Your task to perform on an android device: open app "YouTube Kids" Image 0: 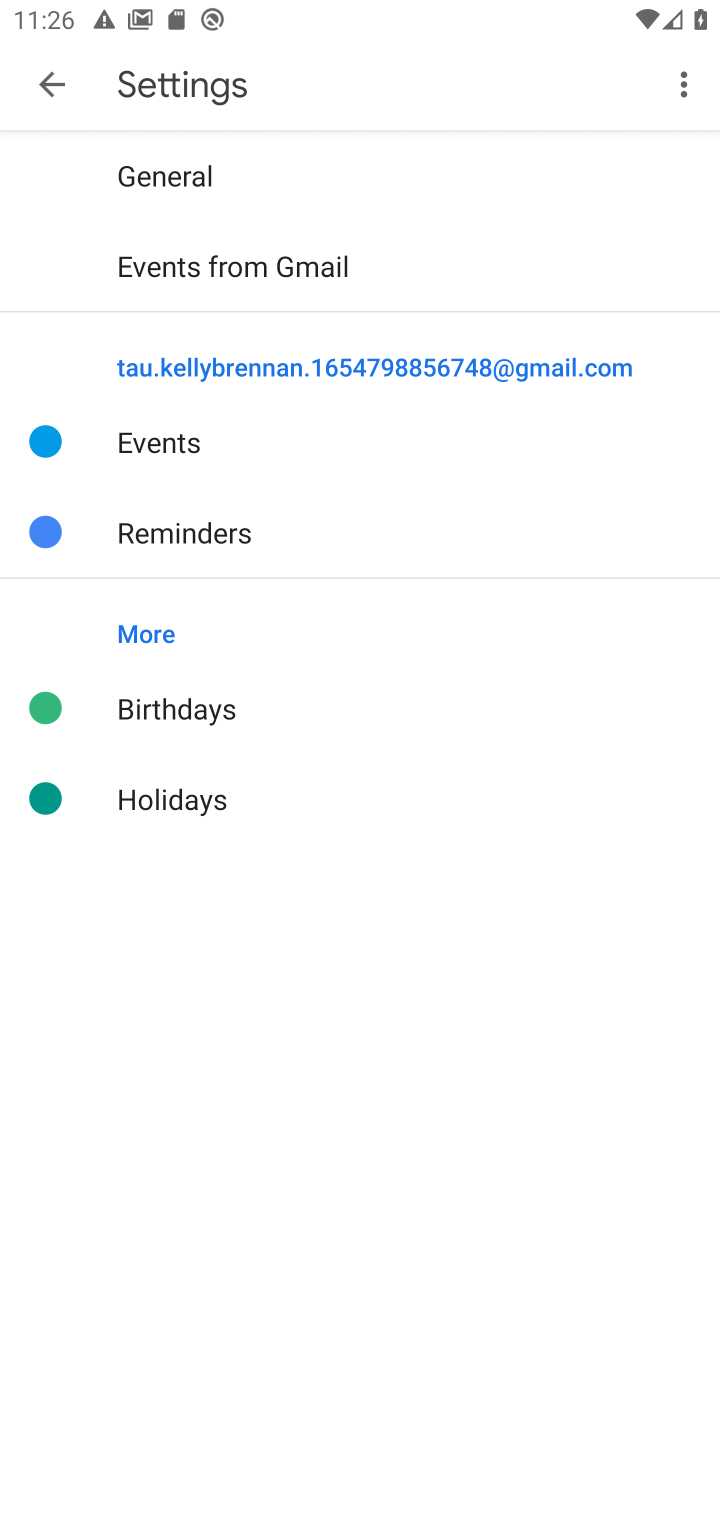
Step 0: press back button
Your task to perform on an android device: open app "YouTube Kids" Image 1: 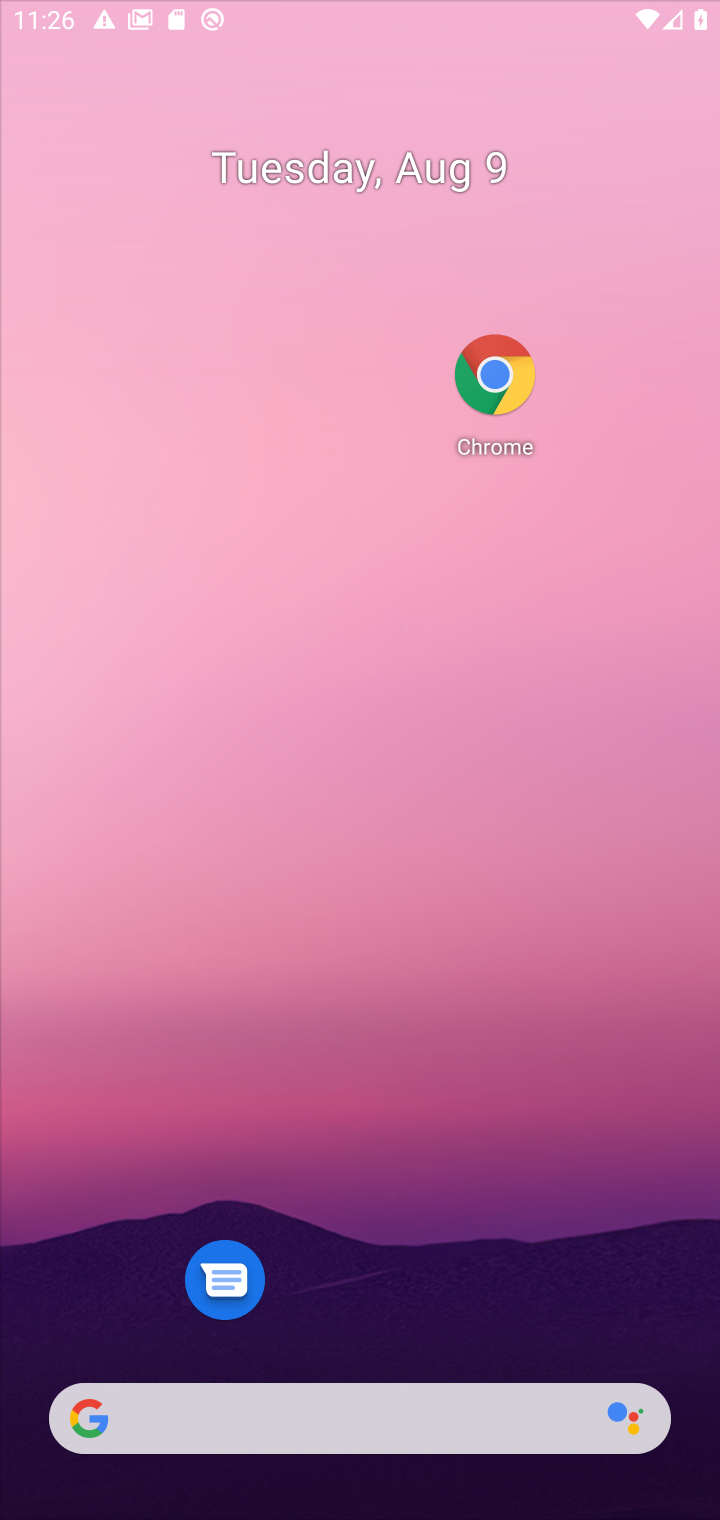
Step 1: press home button
Your task to perform on an android device: open app "YouTube Kids" Image 2: 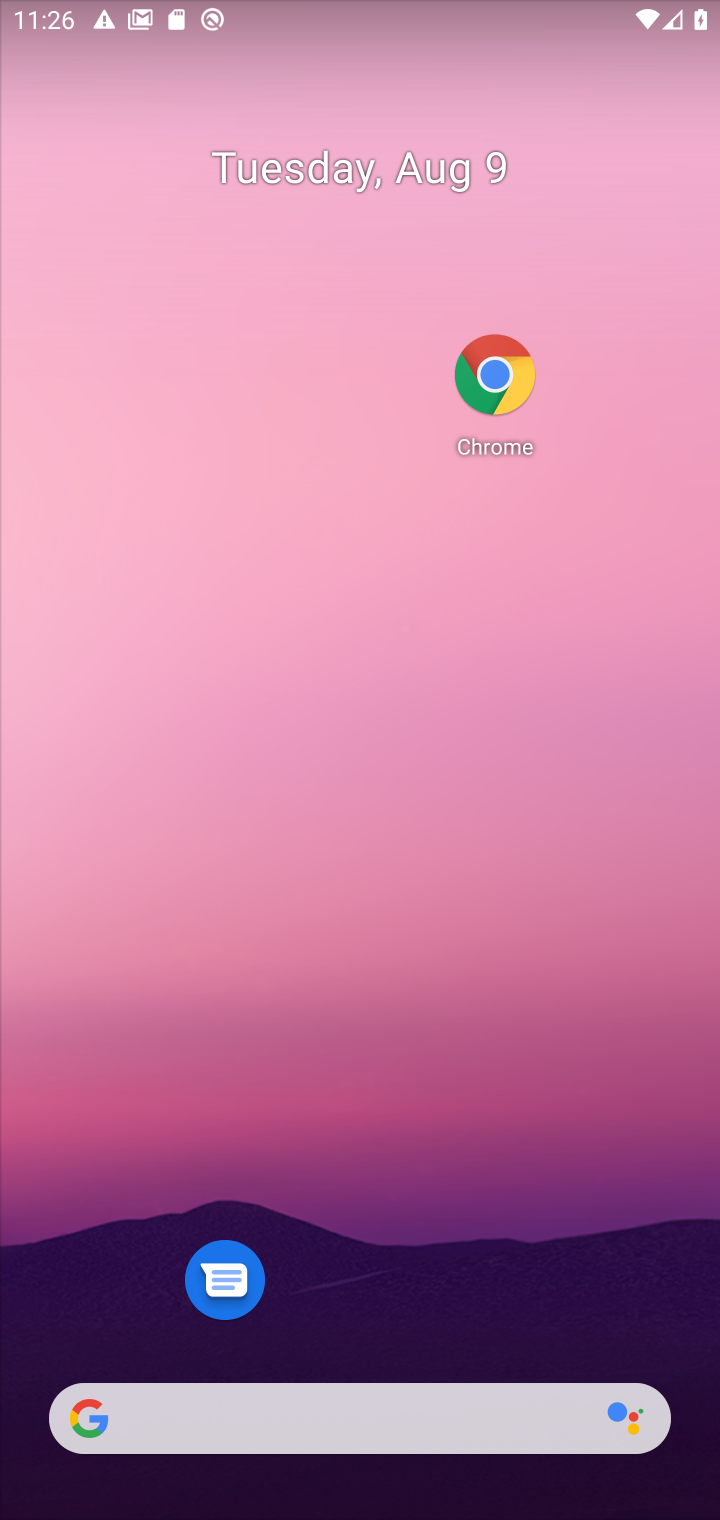
Step 2: drag from (389, 1340) to (293, 146)
Your task to perform on an android device: open app "YouTube Kids" Image 3: 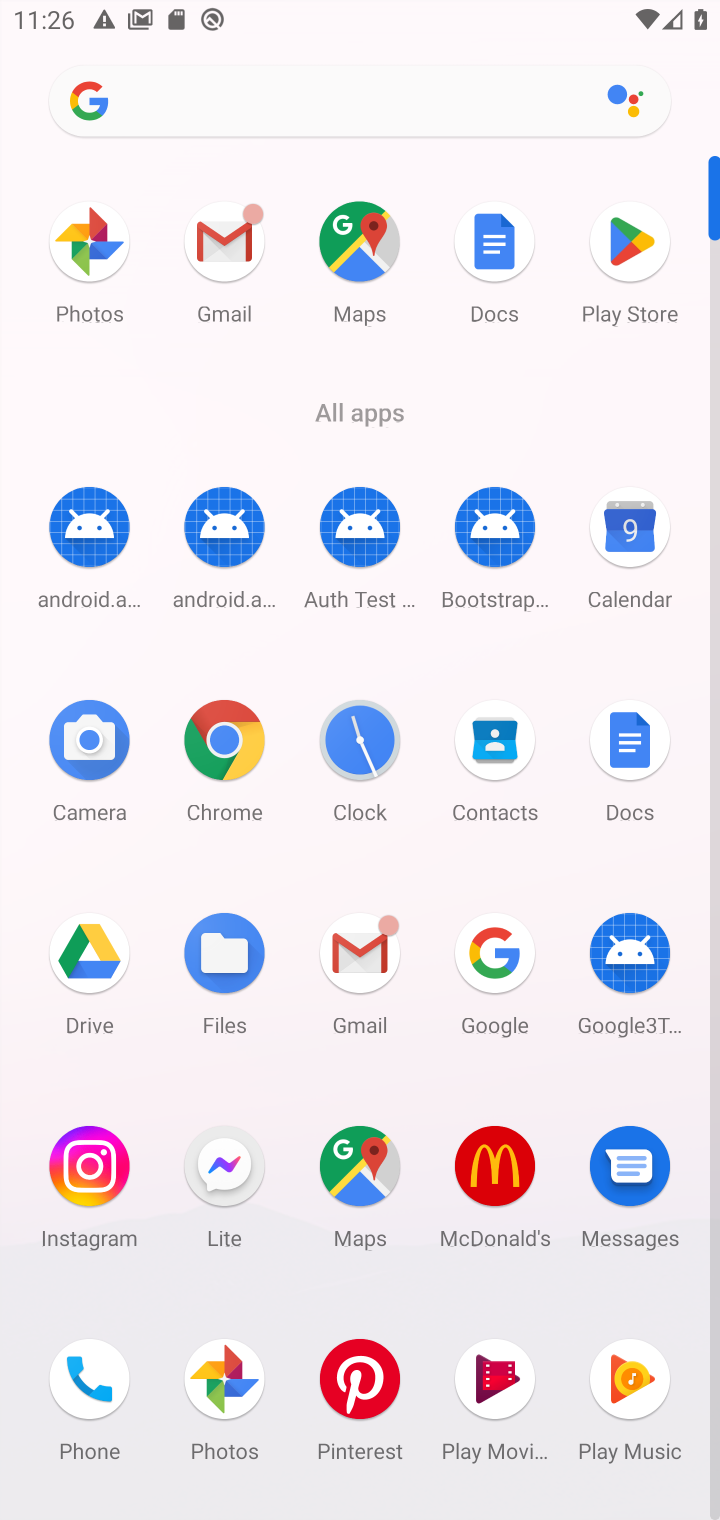
Step 3: click (628, 278)
Your task to perform on an android device: open app "YouTube Kids" Image 4: 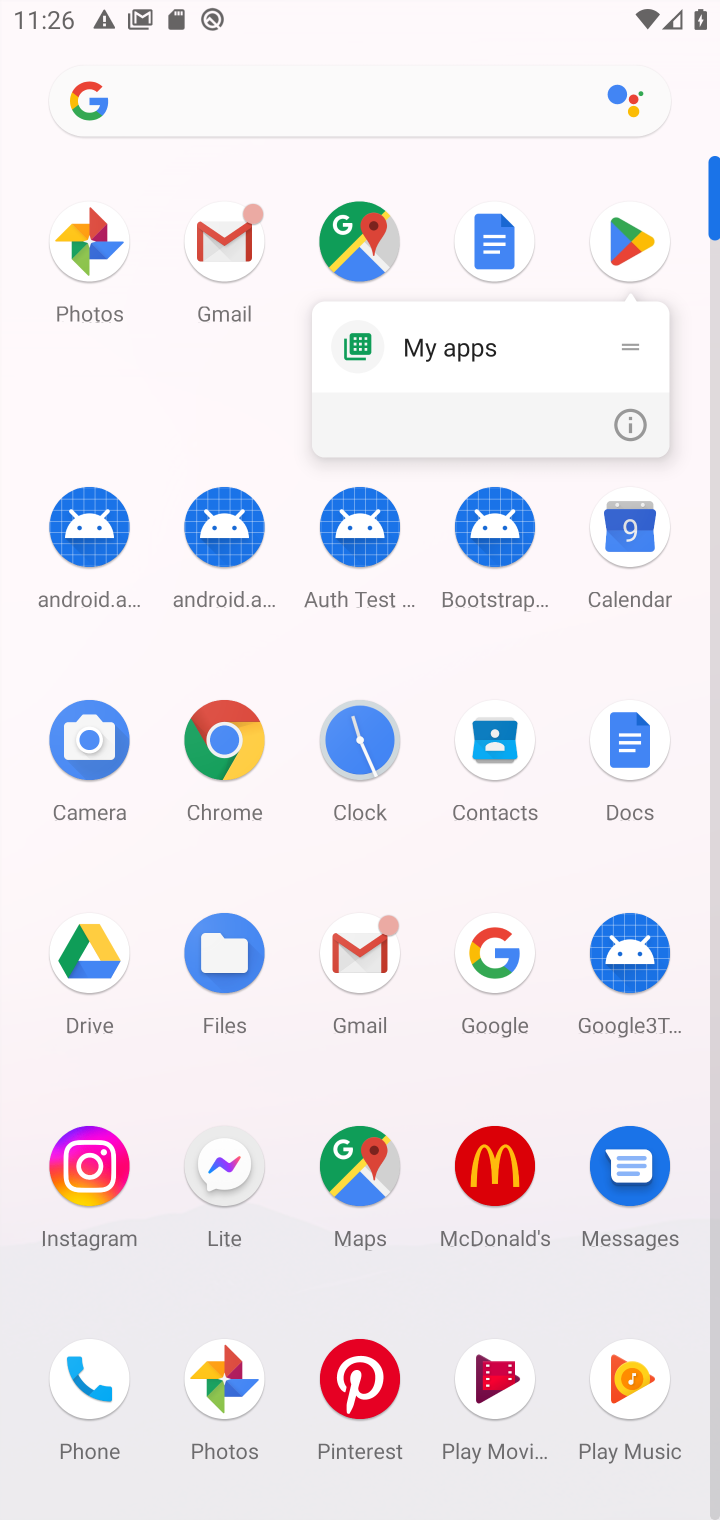
Step 4: click (628, 241)
Your task to perform on an android device: open app "YouTube Kids" Image 5: 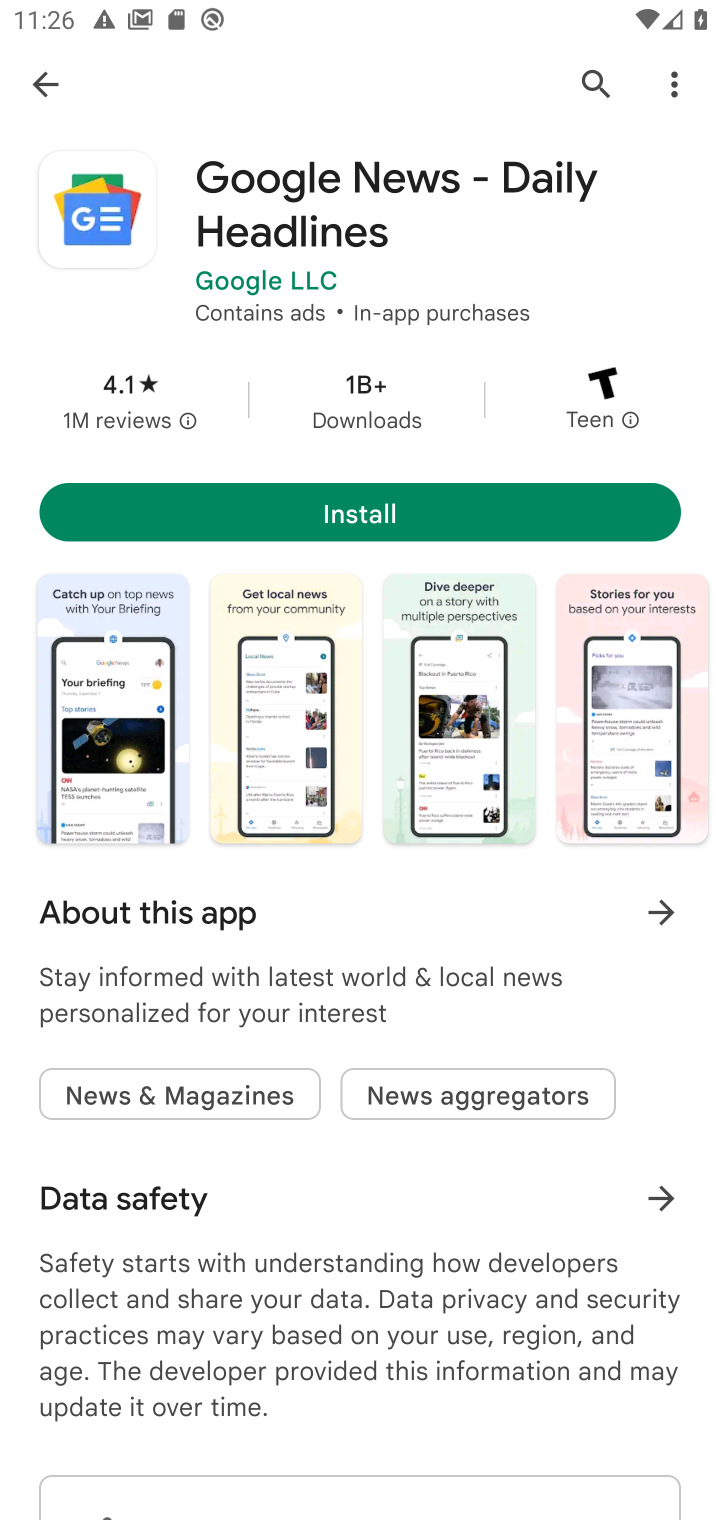
Step 5: click (31, 89)
Your task to perform on an android device: open app "YouTube Kids" Image 6: 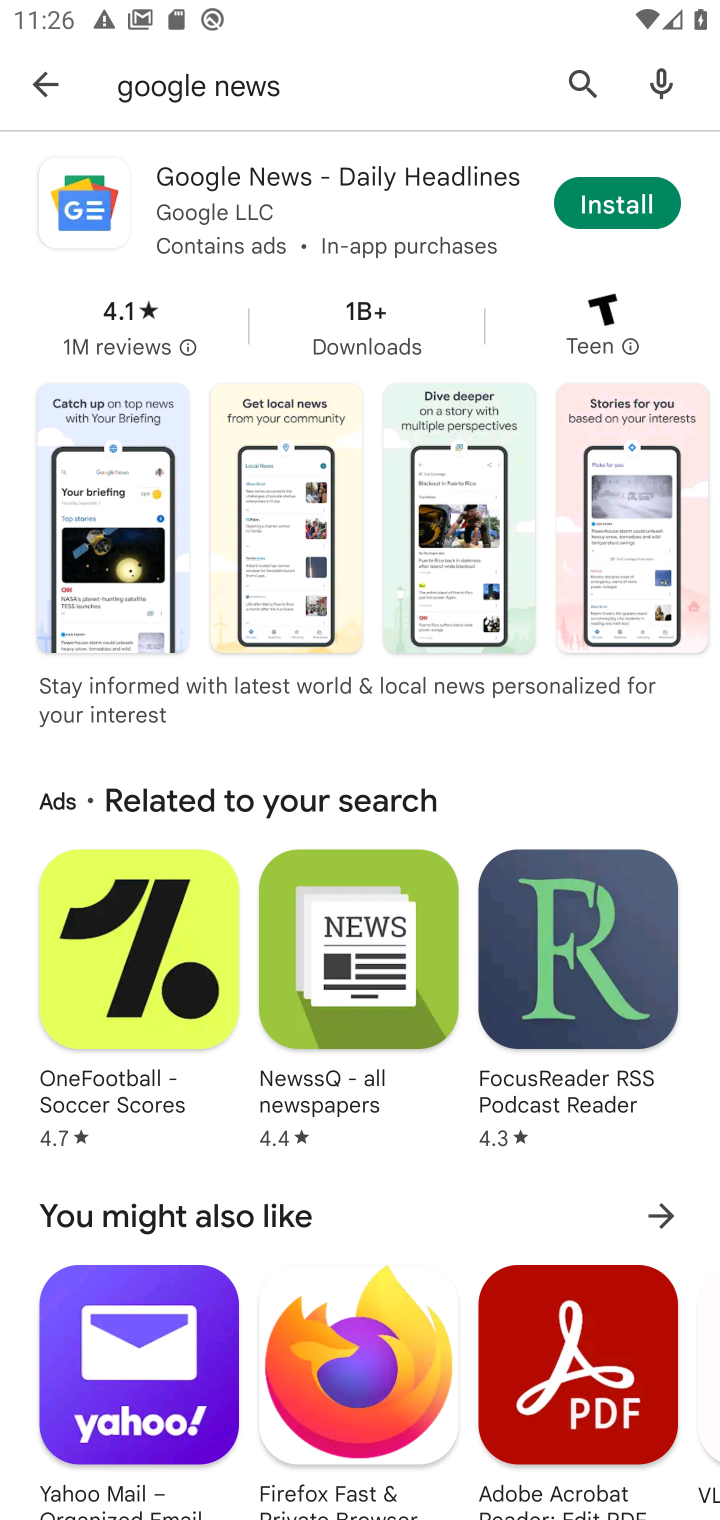
Step 6: click (75, 88)
Your task to perform on an android device: open app "YouTube Kids" Image 7: 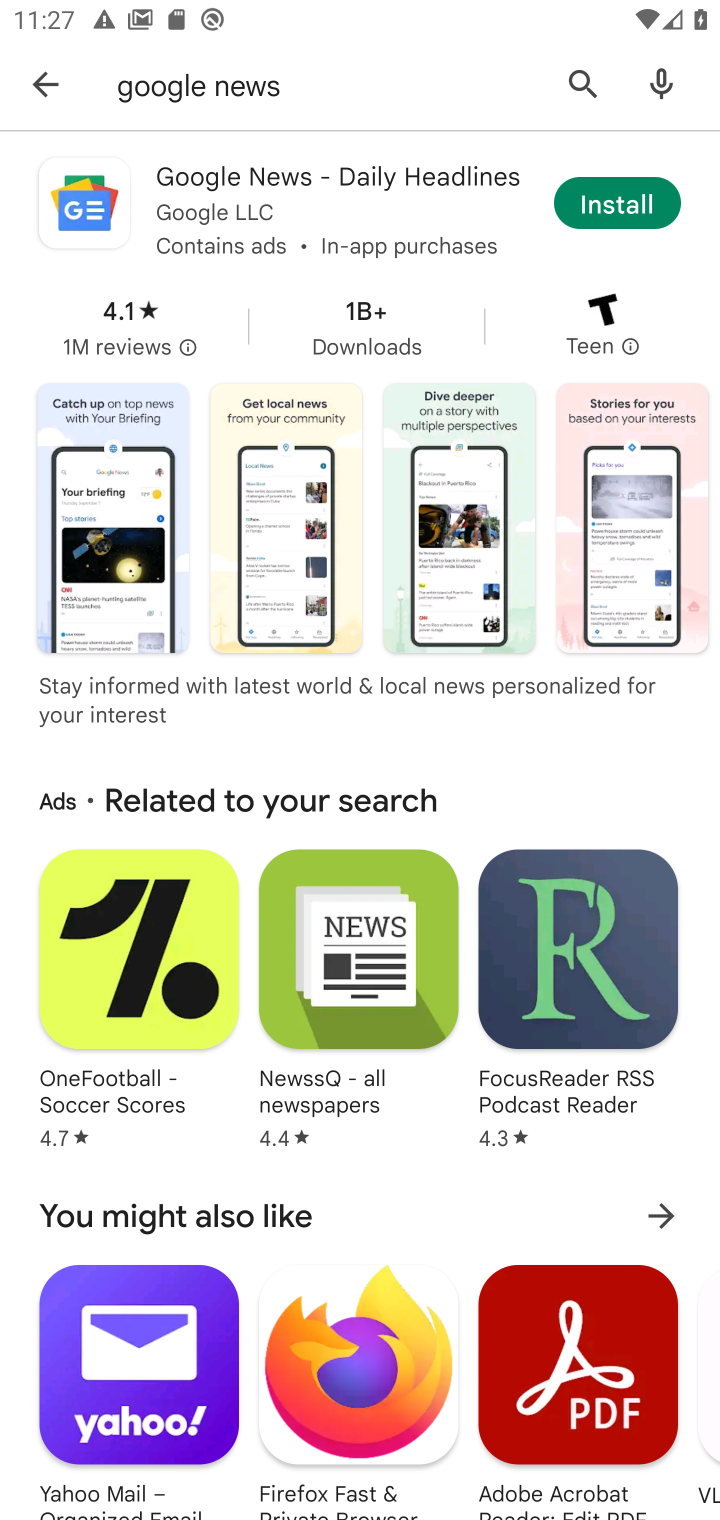
Step 7: click (559, 86)
Your task to perform on an android device: open app "YouTube Kids" Image 8: 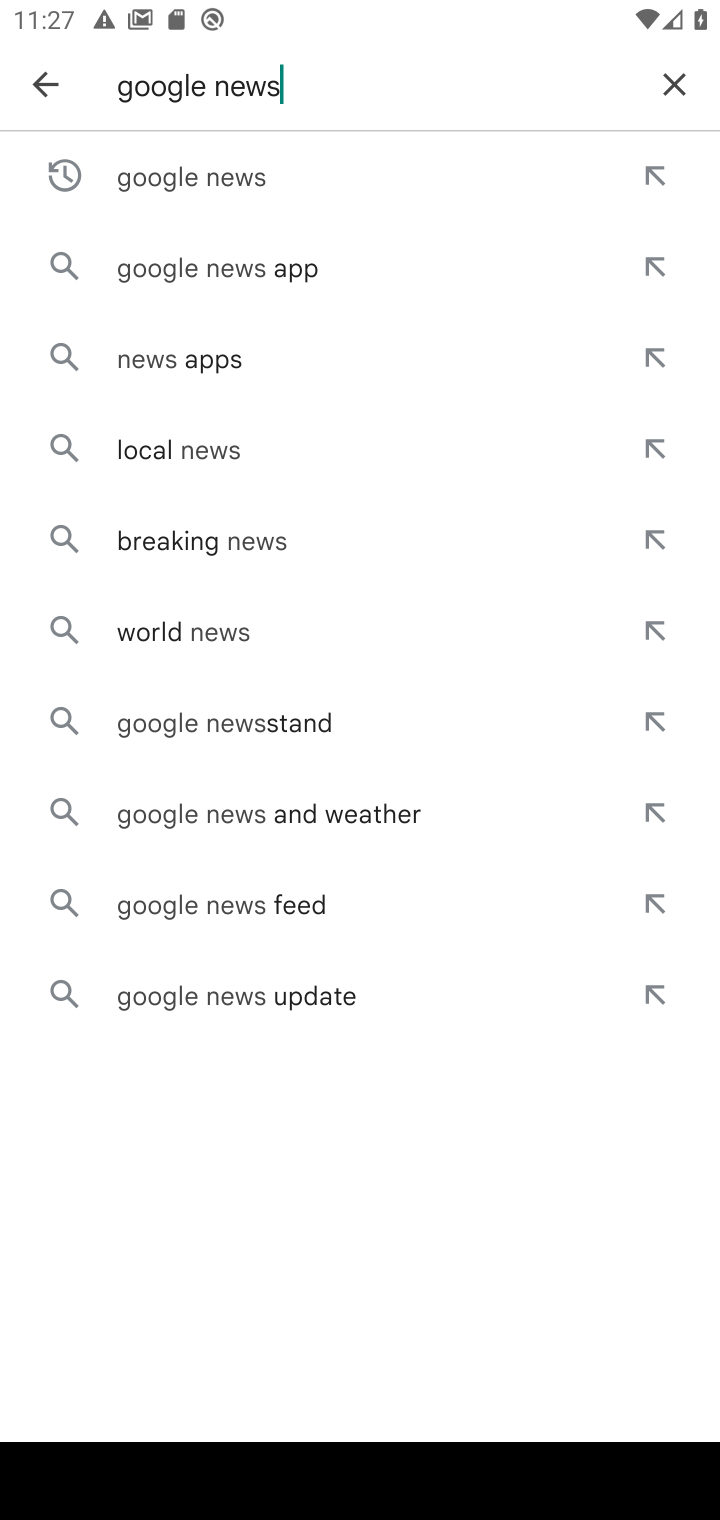
Step 8: click (678, 82)
Your task to perform on an android device: open app "YouTube Kids" Image 9: 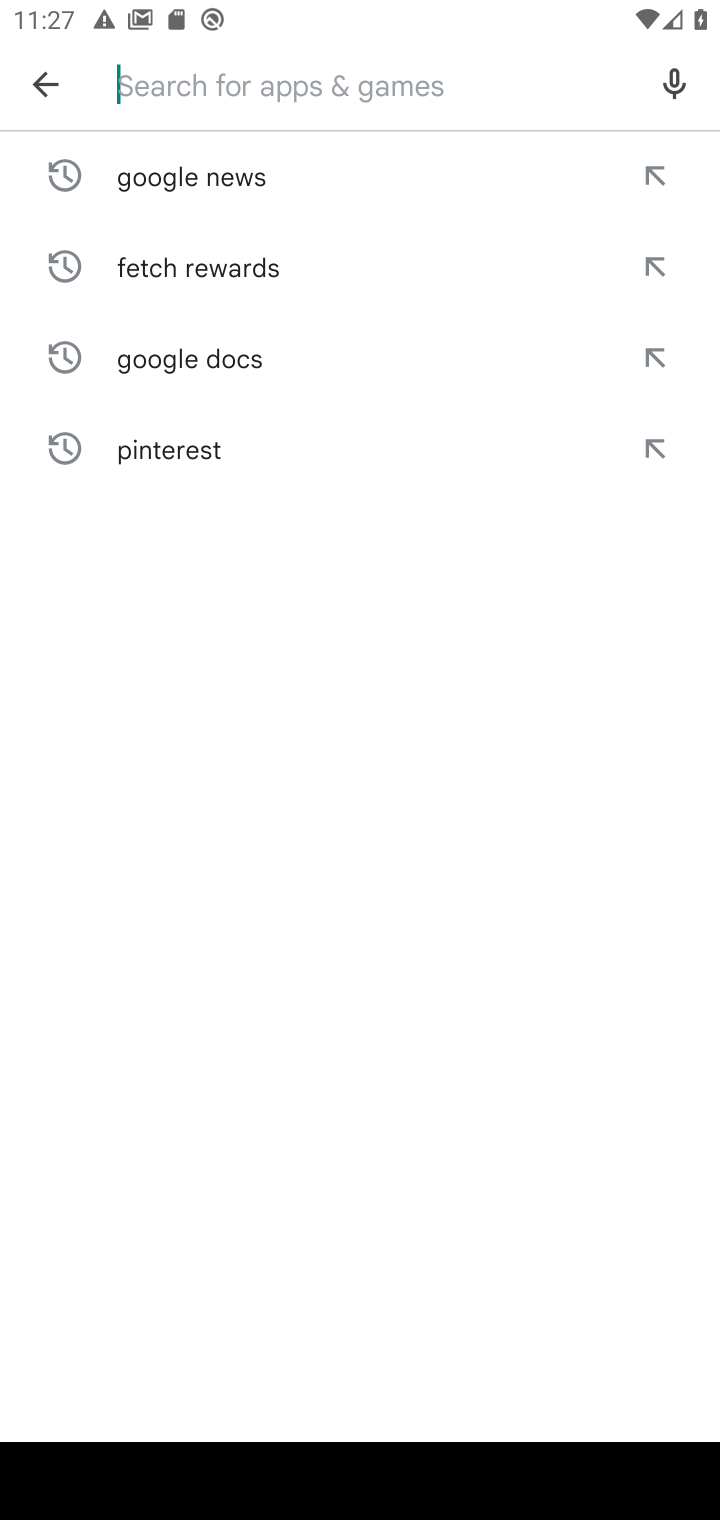
Step 9: type "YouTube Kids"
Your task to perform on an android device: open app "YouTube Kids" Image 10: 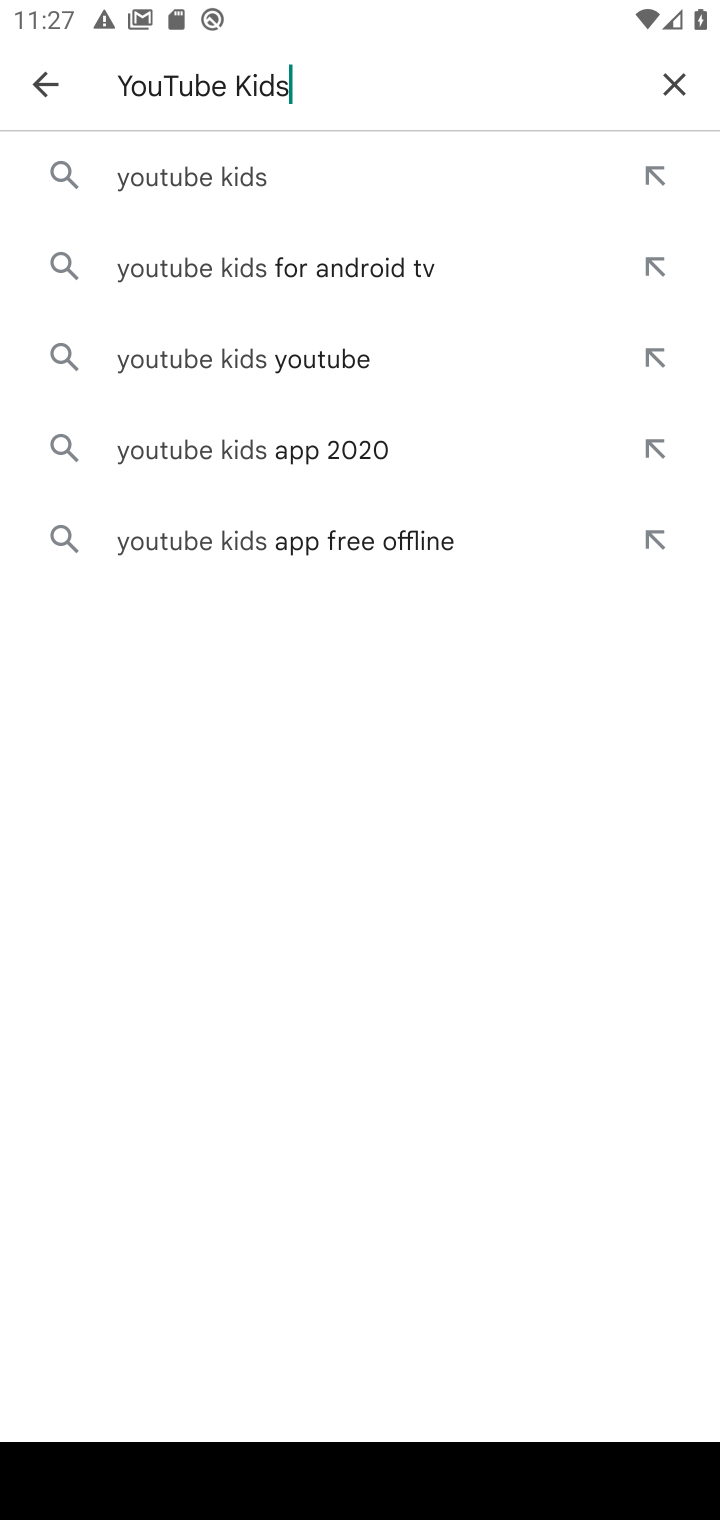
Step 10: type "ouTube Kids"
Your task to perform on an android device: open app "YouTube Kids" Image 11: 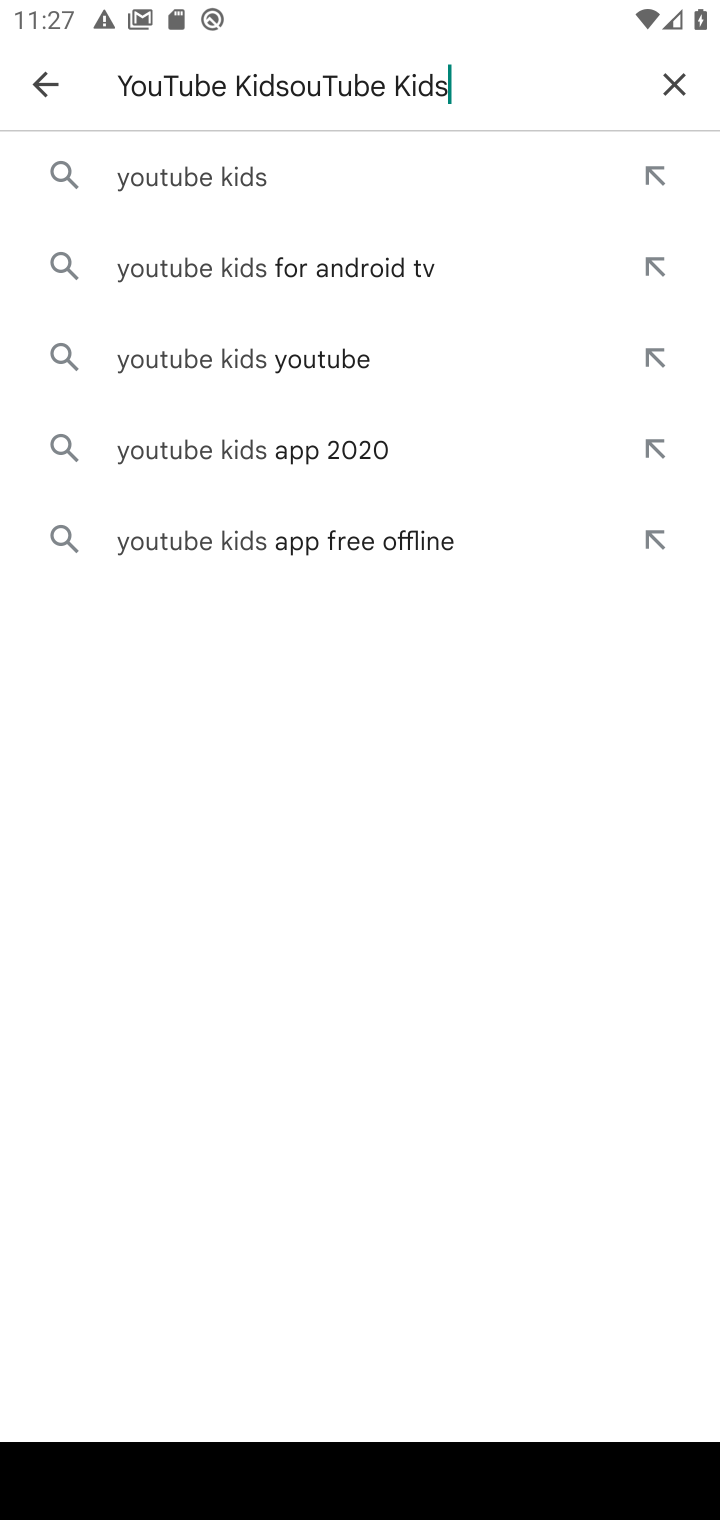
Step 11: type ""
Your task to perform on an android device: open app "YouTube Kids" Image 12: 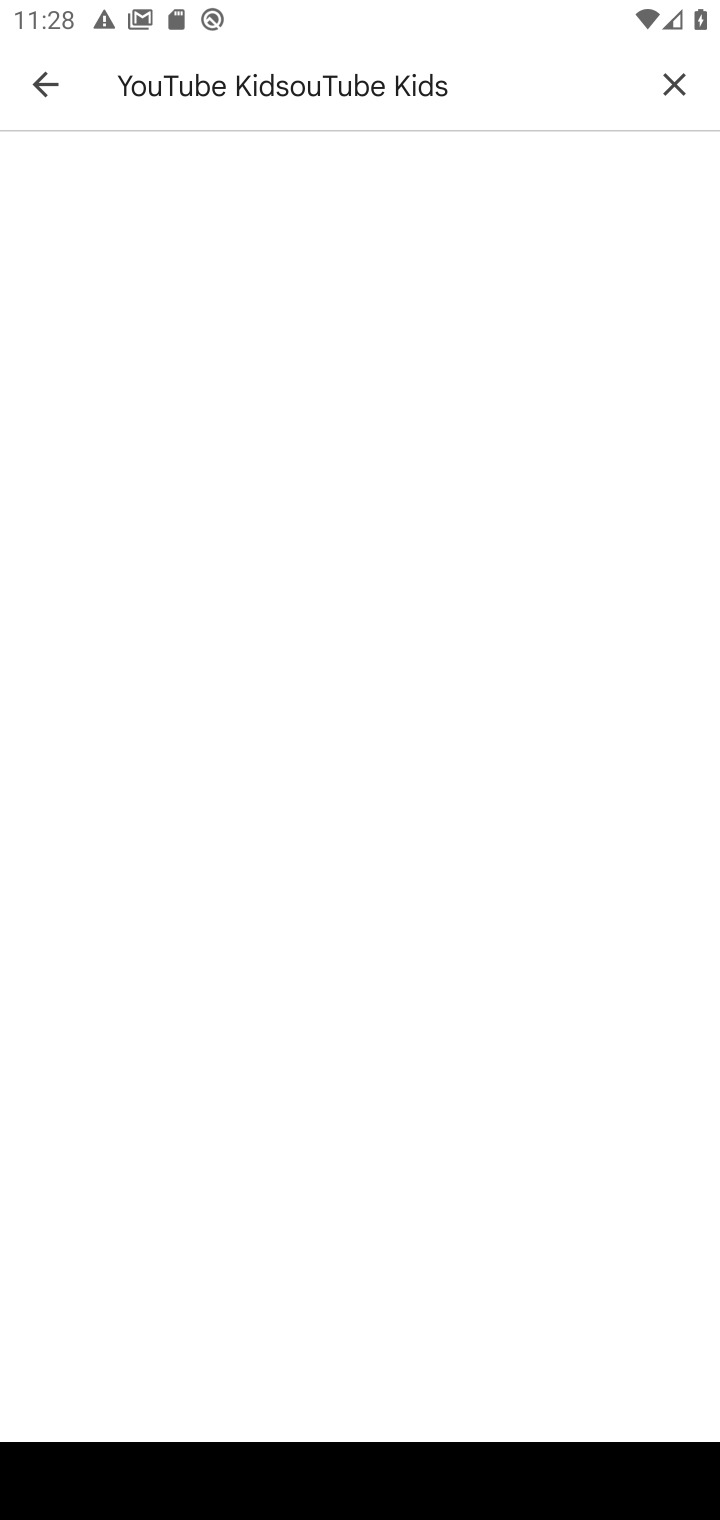
Step 12: click (22, 101)
Your task to perform on an android device: open app "YouTube Kids" Image 13: 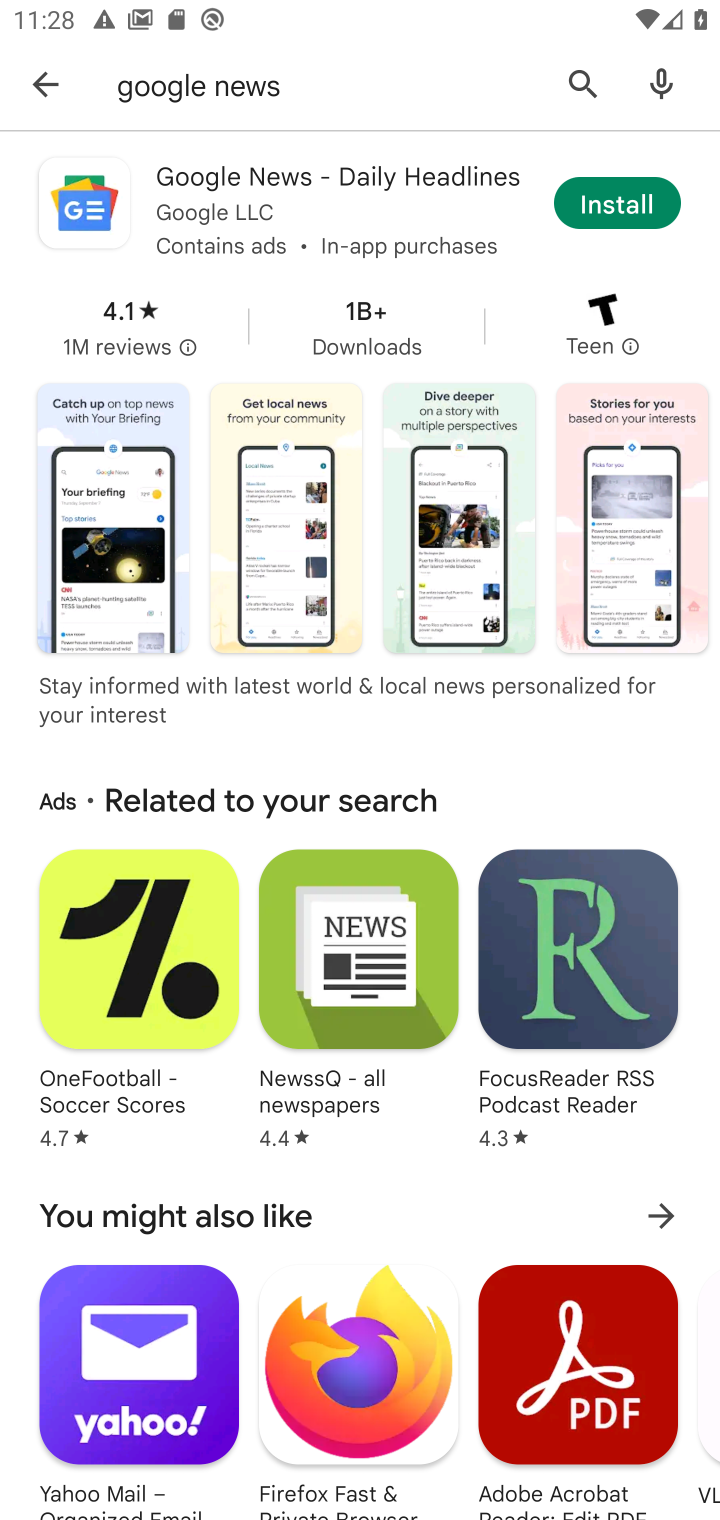
Step 13: click (588, 92)
Your task to perform on an android device: open app "YouTube Kids" Image 14: 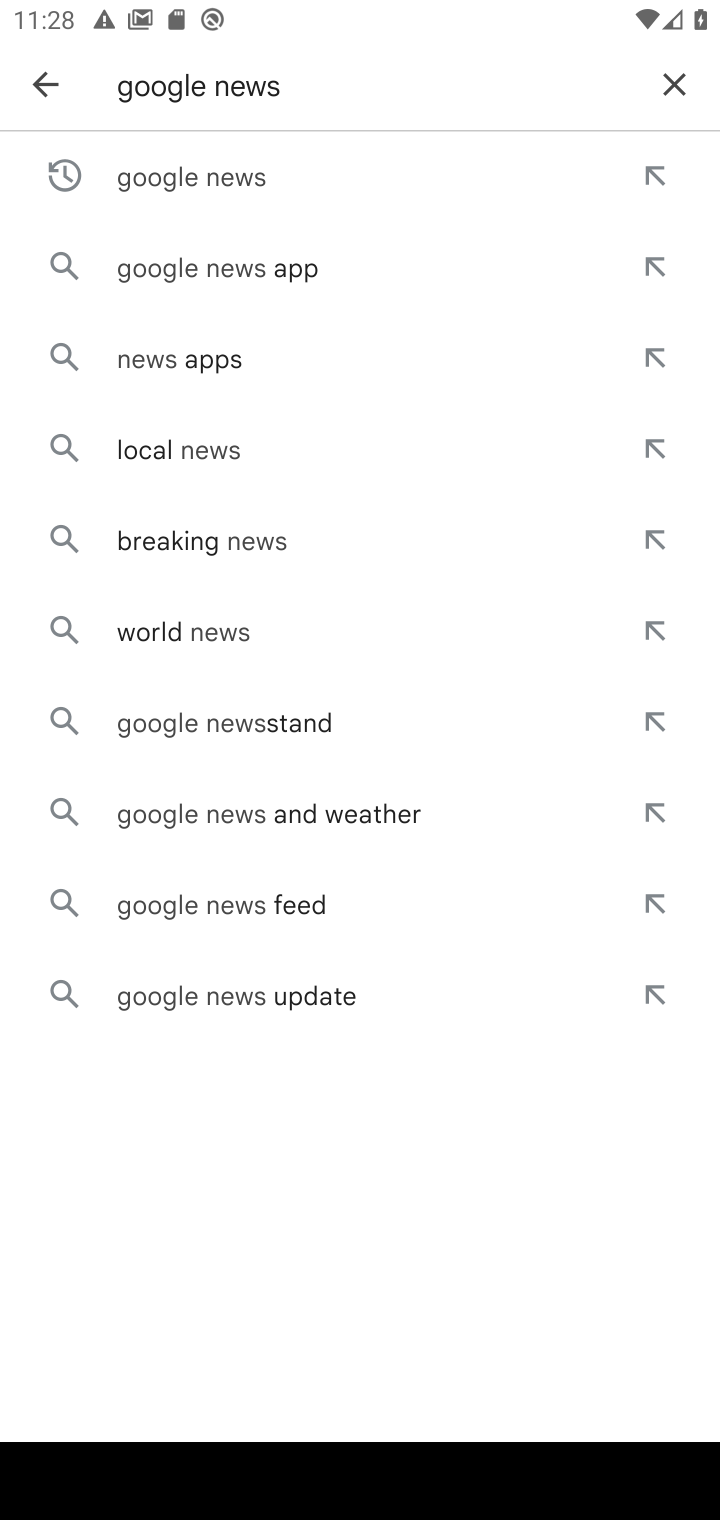
Step 14: click (667, 80)
Your task to perform on an android device: open app "YouTube Kids" Image 15: 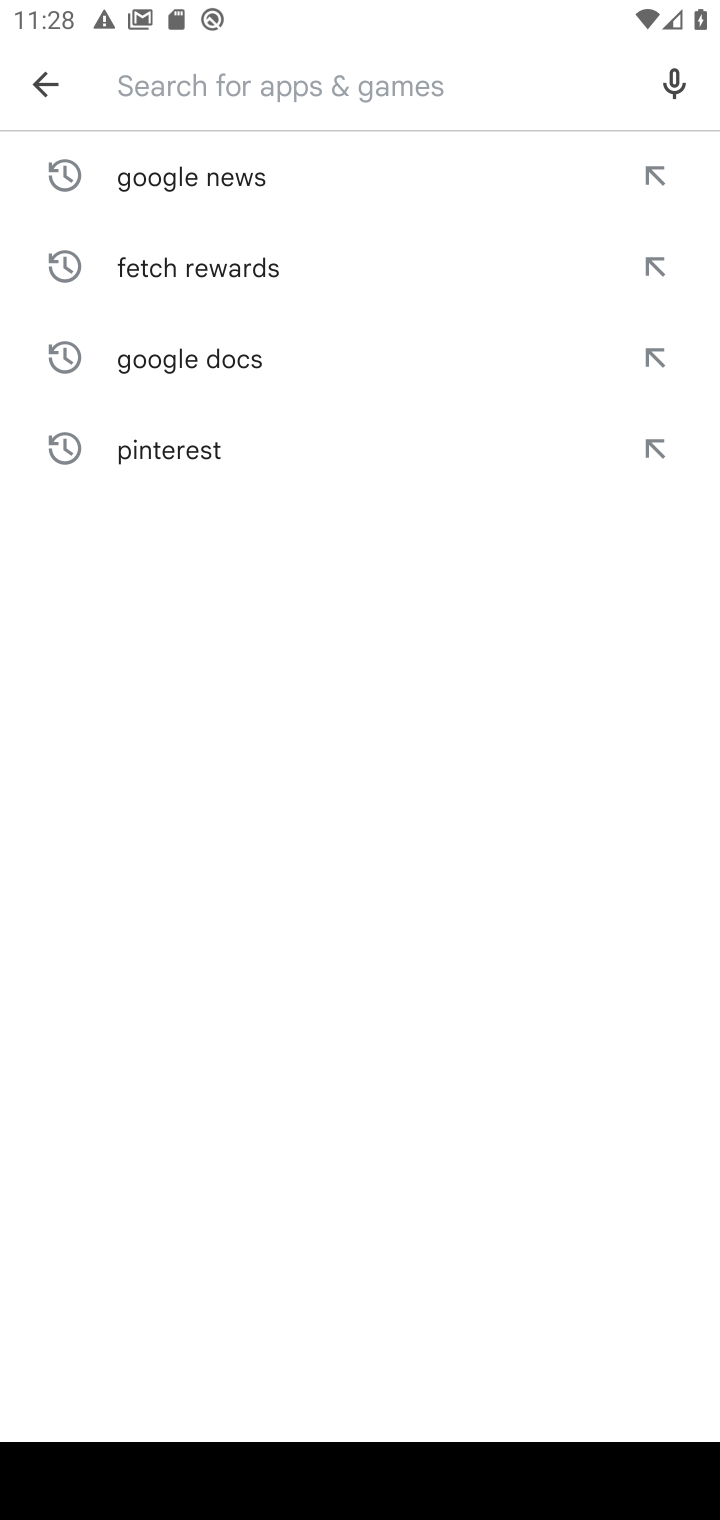
Step 15: type "ouTube Kids"
Your task to perform on an android device: open app "YouTube Kids" Image 16: 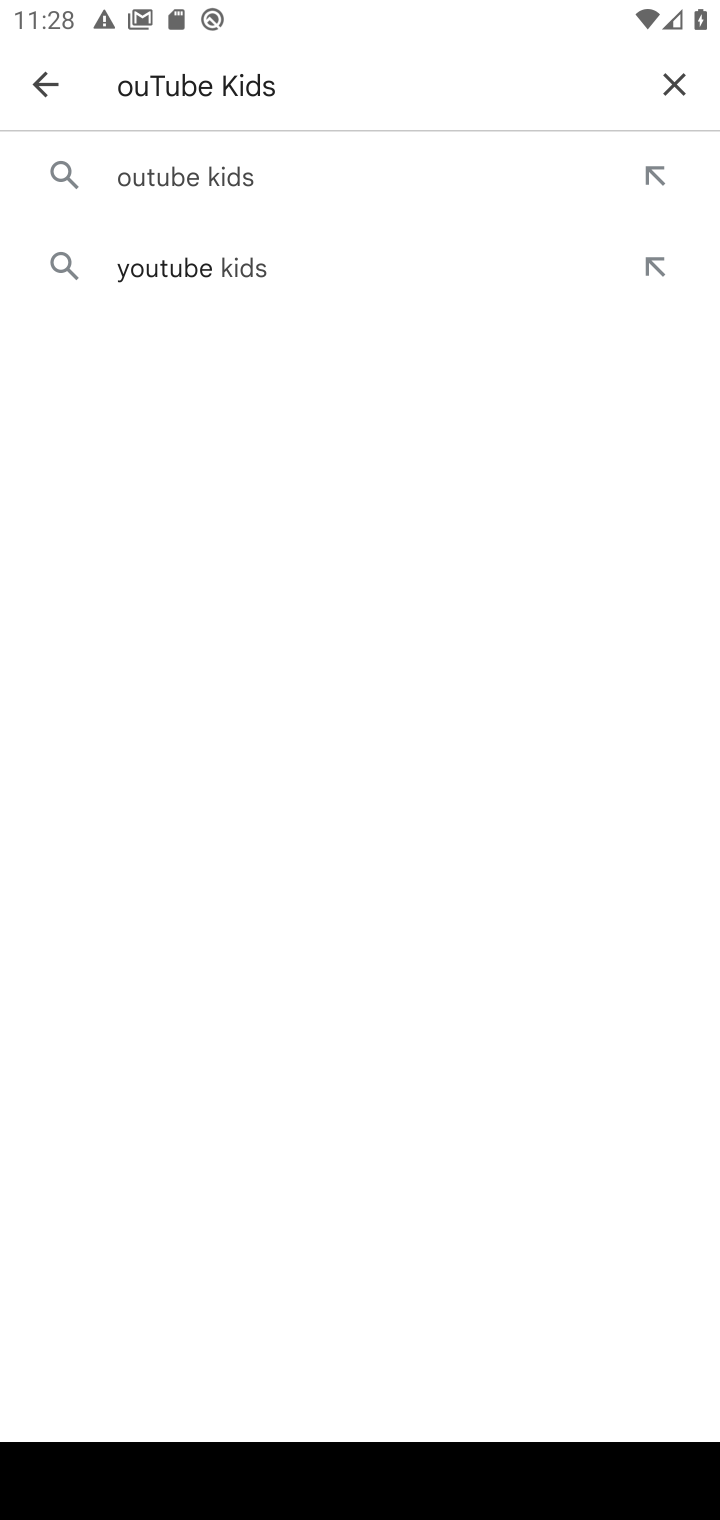
Step 16: click (219, 172)
Your task to perform on an android device: open app "YouTube Kids" Image 17: 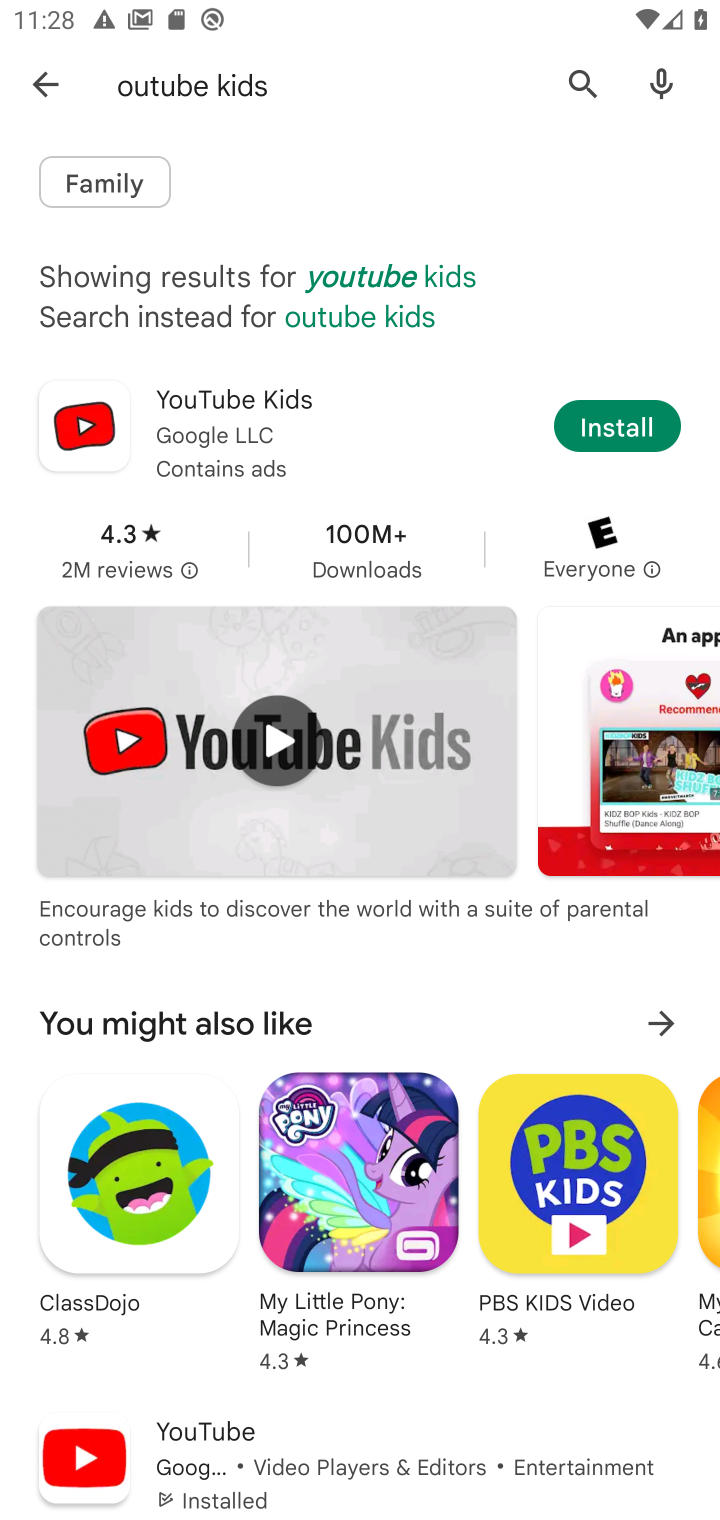
Step 17: click (583, 429)
Your task to perform on an android device: open app "YouTube Kids" Image 18: 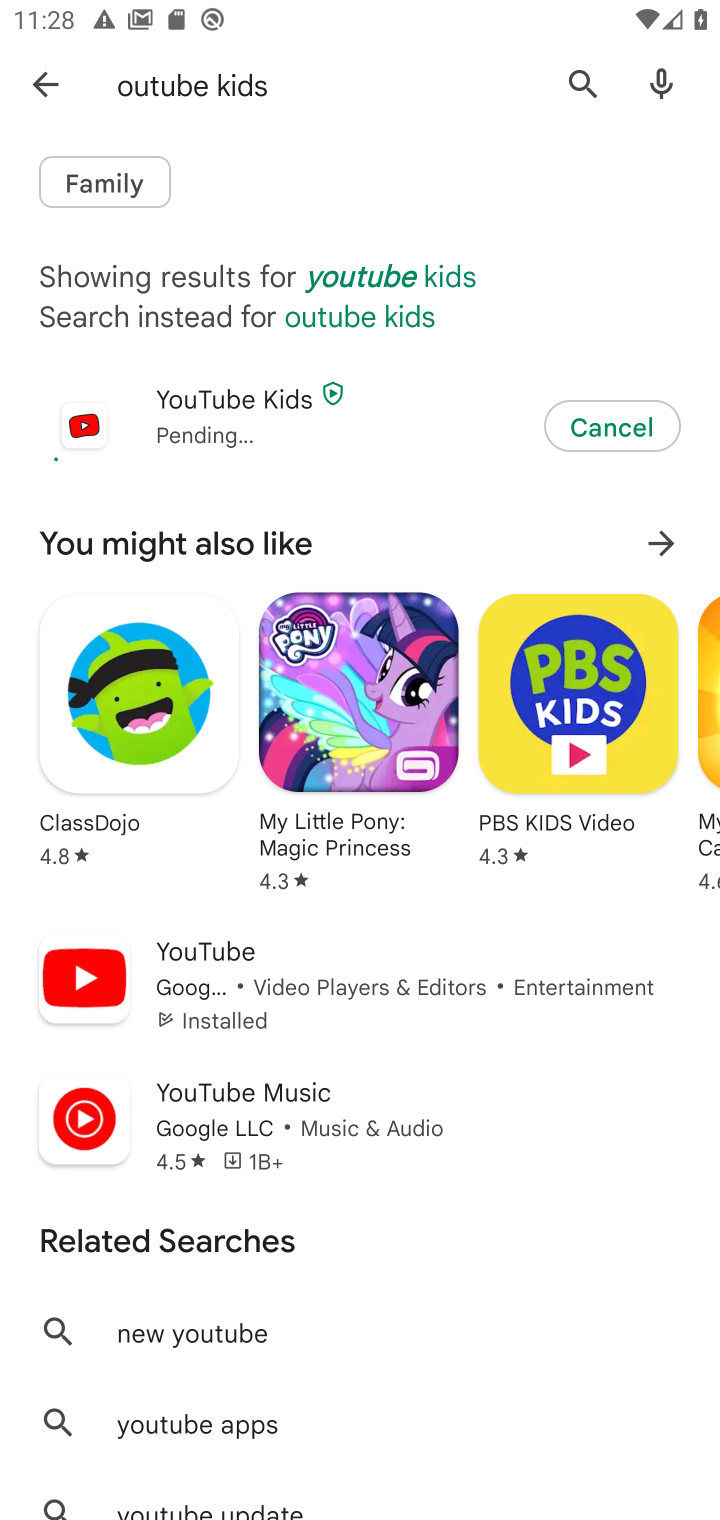
Step 18: click (612, 412)
Your task to perform on an android device: open app "YouTube Kids" Image 19: 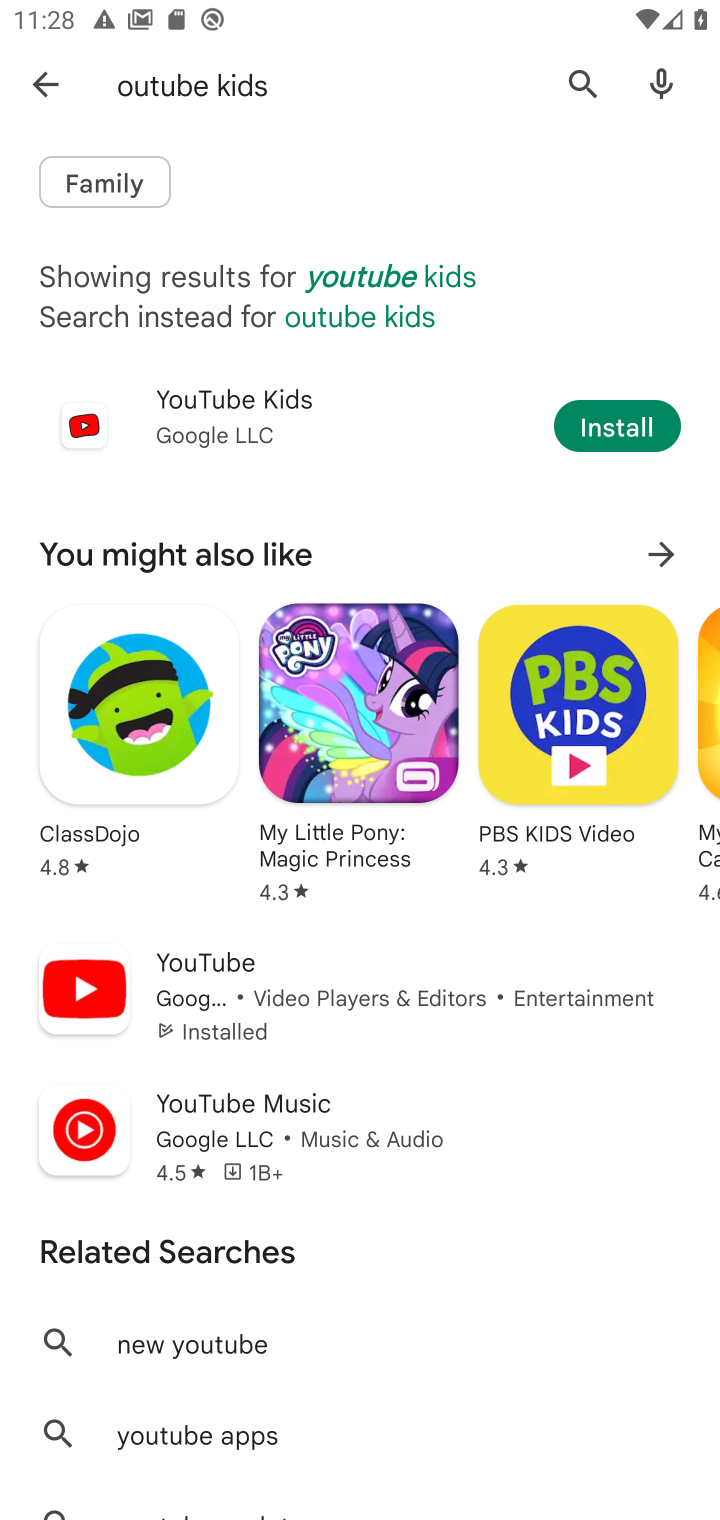
Step 19: task complete